Your task to perform on an android device: toggle translation in the chrome app Image 0: 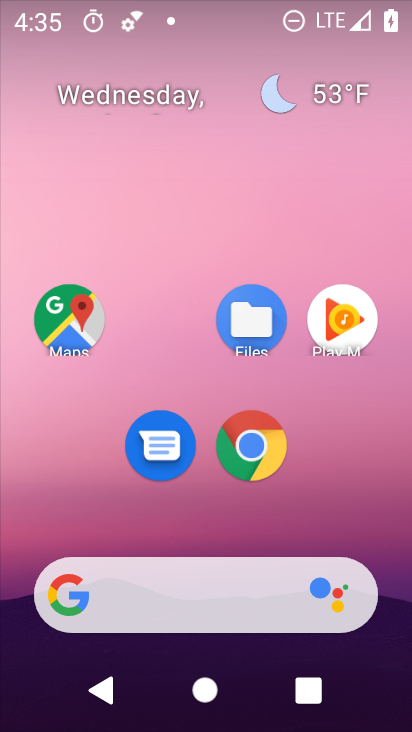
Step 0: click (245, 447)
Your task to perform on an android device: toggle translation in the chrome app Image 1: 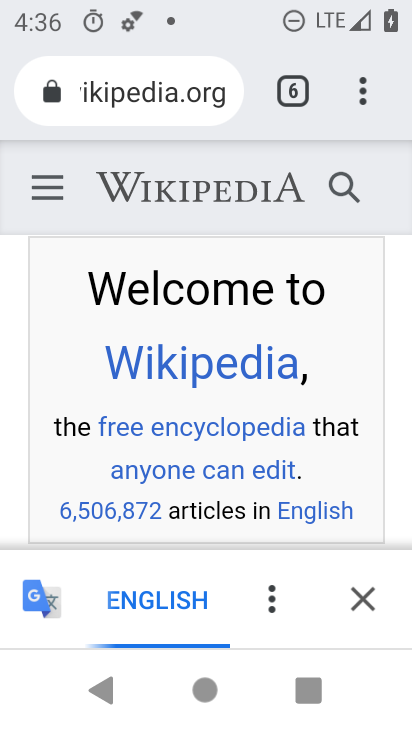
Step 1: click (364, 91)
Your task to perform on an android device: toggle translation in the chrome app Image 2: 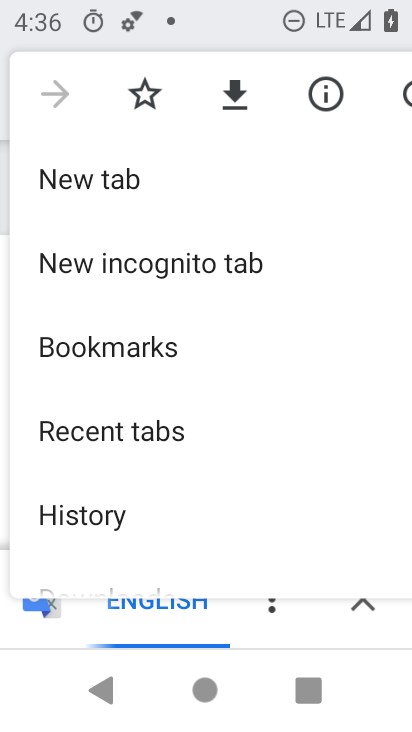
Step 2: drag from (147, 495) to (187, 54)
Your task to perform on an android device: toggle translation in the chrome app Image 3: 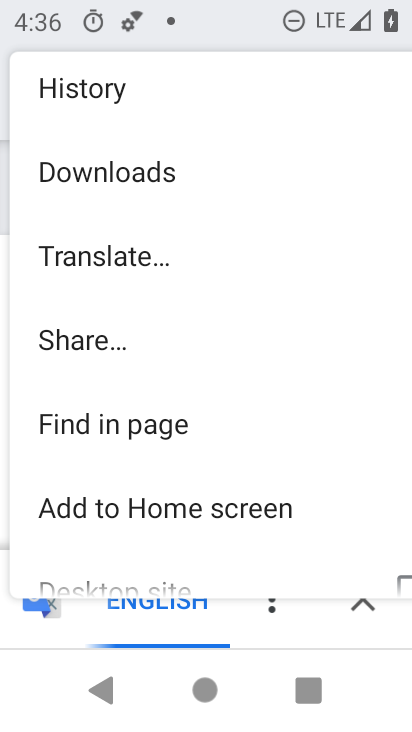
Step 3: drag from (219, 483) to (231, 163)
Your task to perform on an android device: toggle translation in the chrome app Image 4: 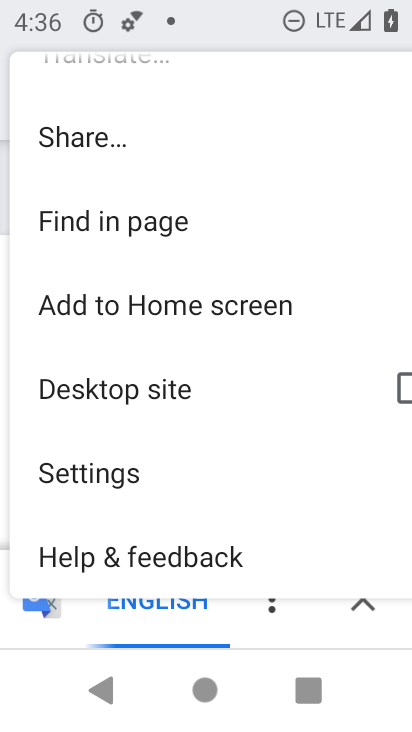
Step 4: click (89, 482)
Your task to perform on an android device: toggle translation in the chrome app Image 5: 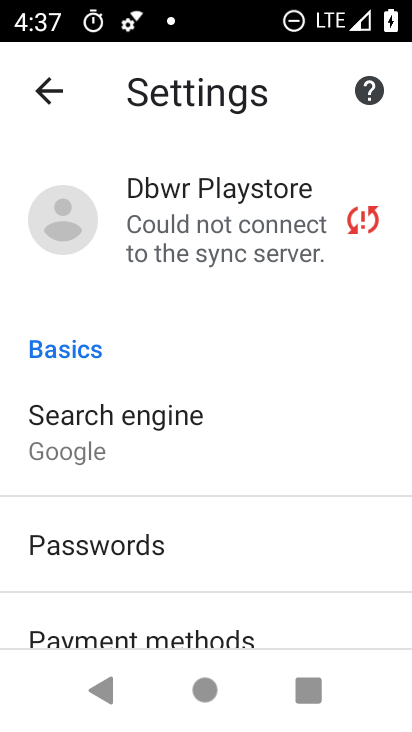
Step 5: drag from (189, 602) to (209, 285)
Your task to perform on an android device: toggle translation in the chrome app Image 6: 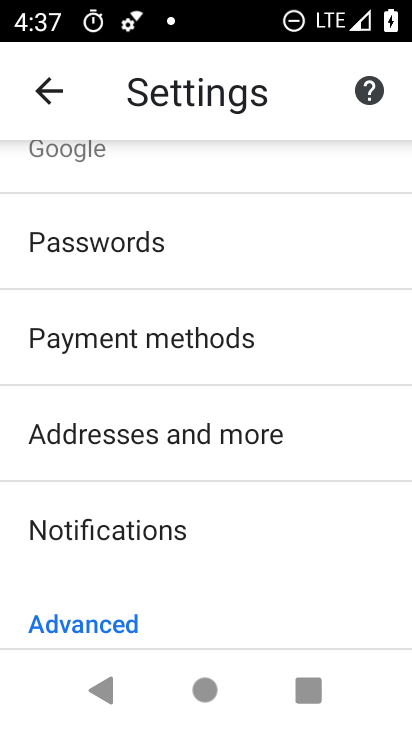
Step 6: drag from (231, 552) to (108, 166)
Your task to perform on an android device: toggle translation in the chrome app Image 7: 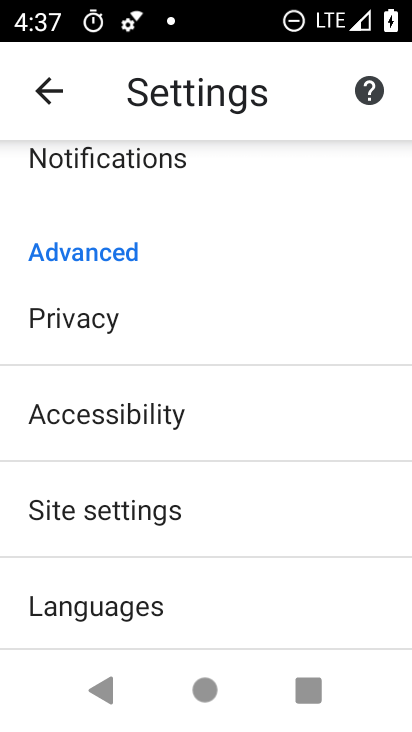
Step 7: click (153, 615)
Your task to perform on an android device: toggle translation in the chrome app Image 8: 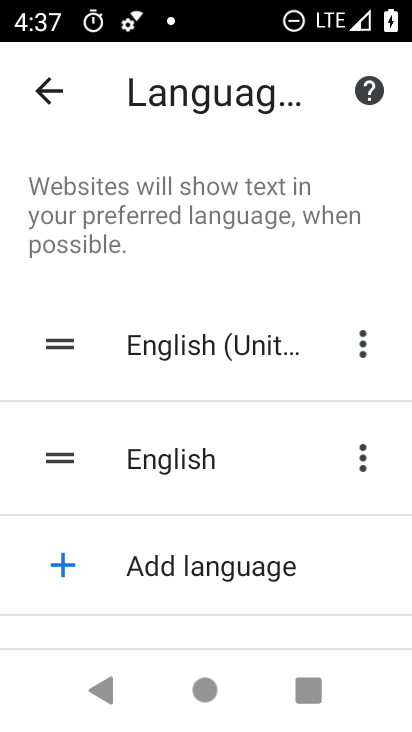
Step 8: drag from (277, 529) to (238, 102)
Your task to perform on an android device: toggle translation in the chrome app Image 9: 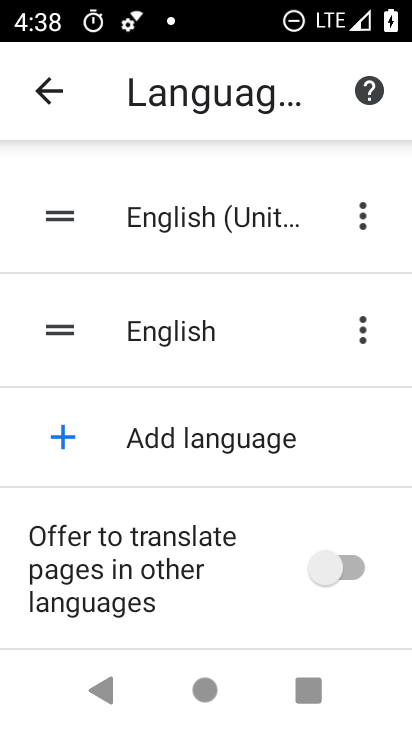
Step 9: click (355, 566)
Your task to perform on an android device: toggle translation in the chrome app Image 10: 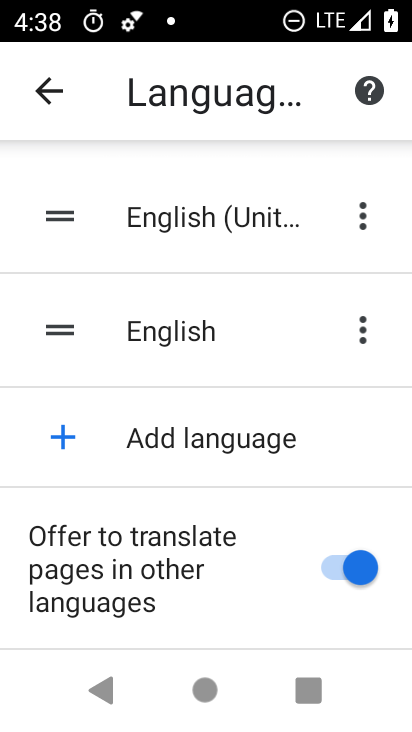
Step 10: task complete